Your task to perform on an android device: install app "Facebook" Image 0: 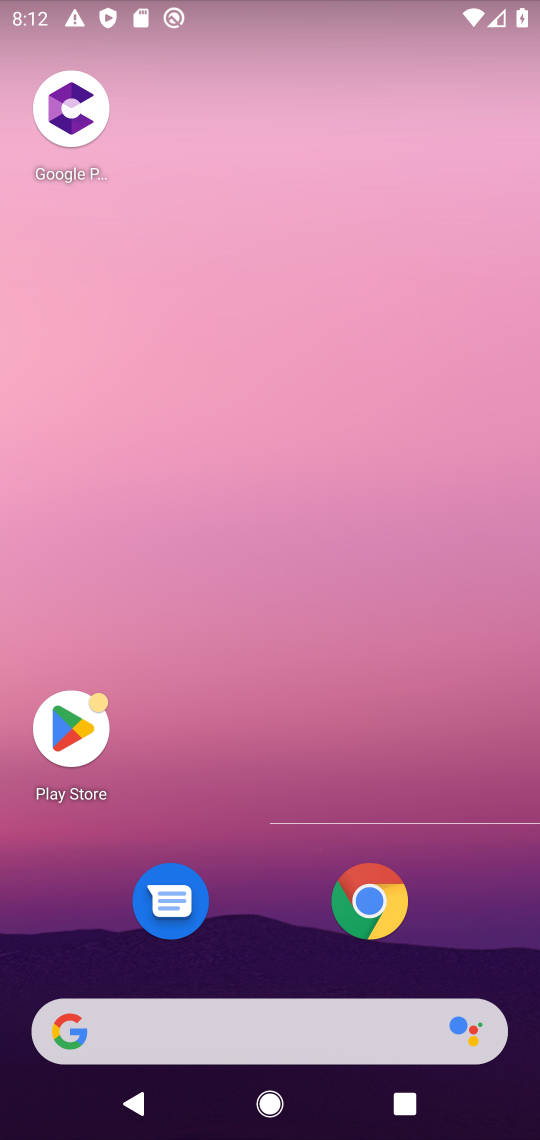
Step 0: click (72, 726)
Your task to perform on an android device: install app "Facebook" Image 1: 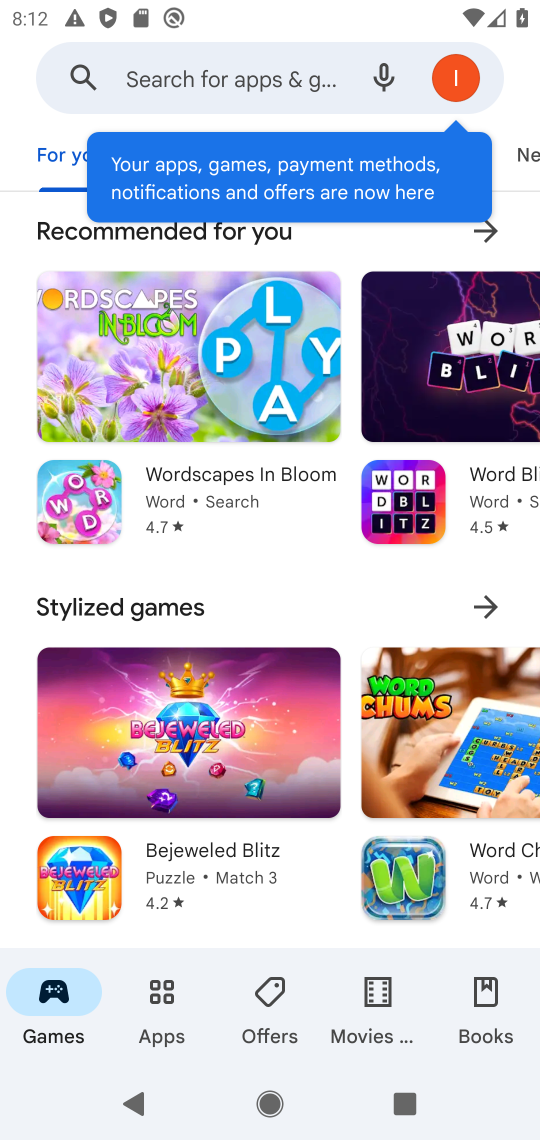
Step 1: click (308, 70)
Your task to perform on an android device: install app "Facebook" Image 2: 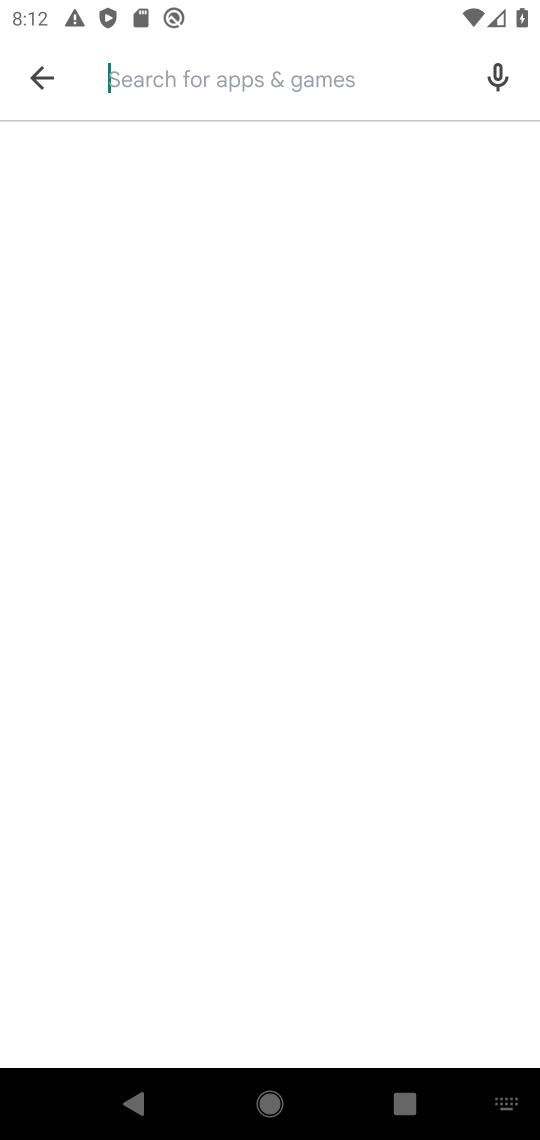
Step 2: type "Facebook"
Your task to perform on an android device: install app "Facebook" Image 3: 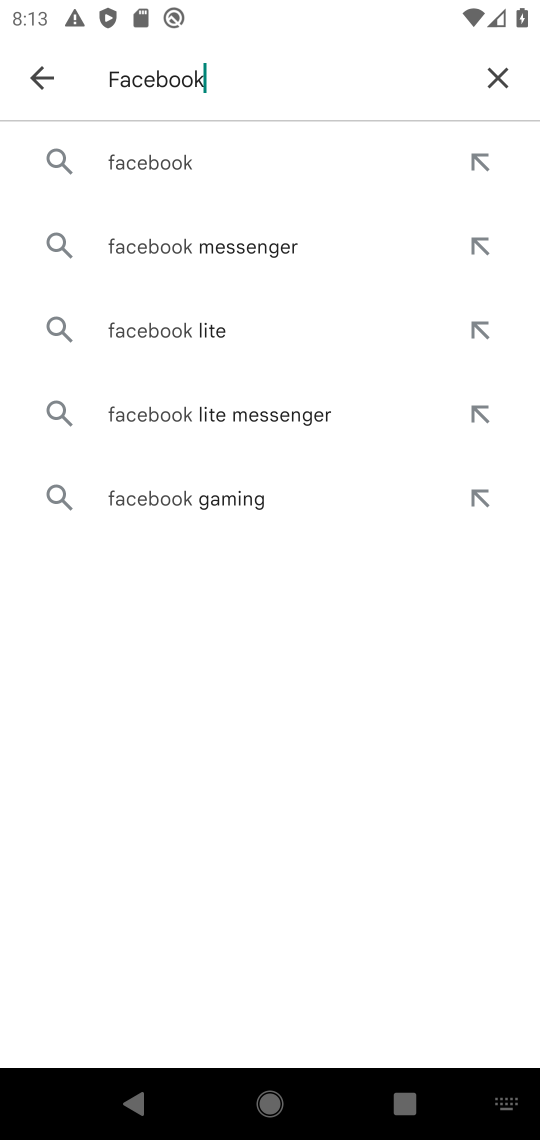
Step 3: click (170, 151)
Your task to perform on an android device: install app "Facebook" Image 4: 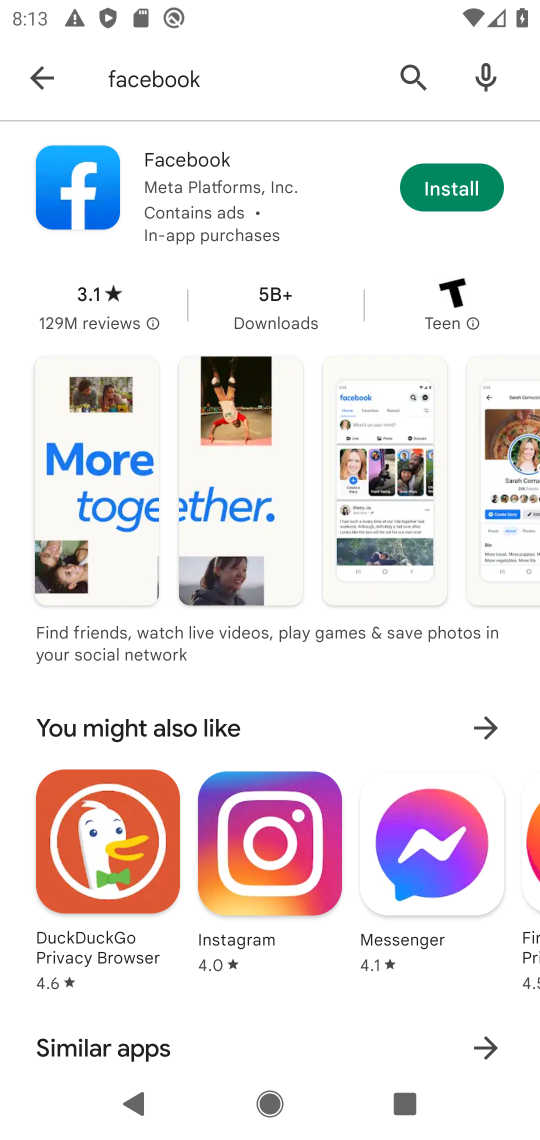
Step 4: click (445, 194)
Your task to perform on an android device: install app "Facebook" Image 5: 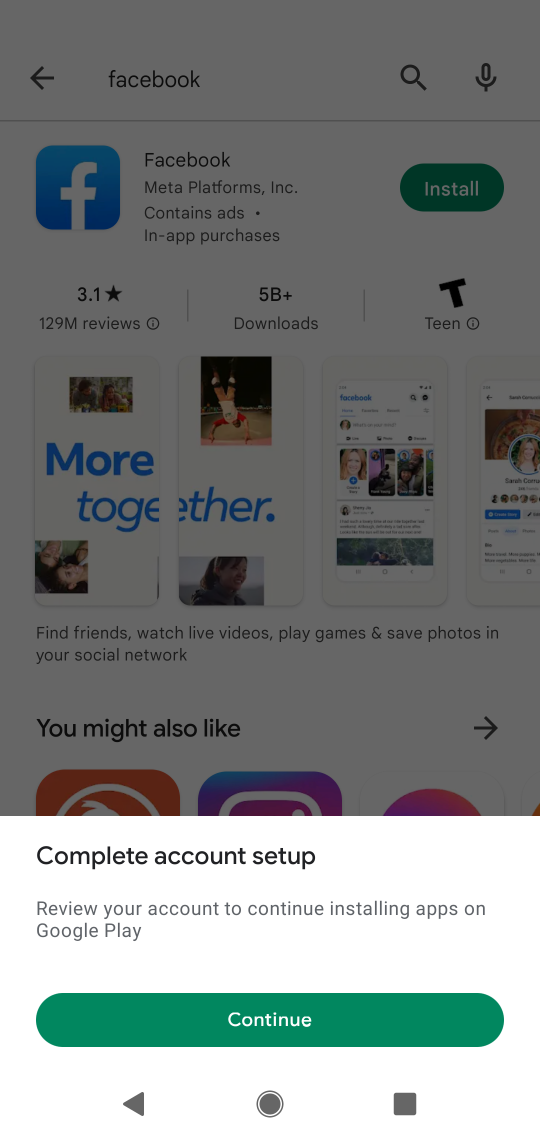
Step 5: click (309, 1016)
Your task to perform on an android device: install app "Facebook" Image 6: 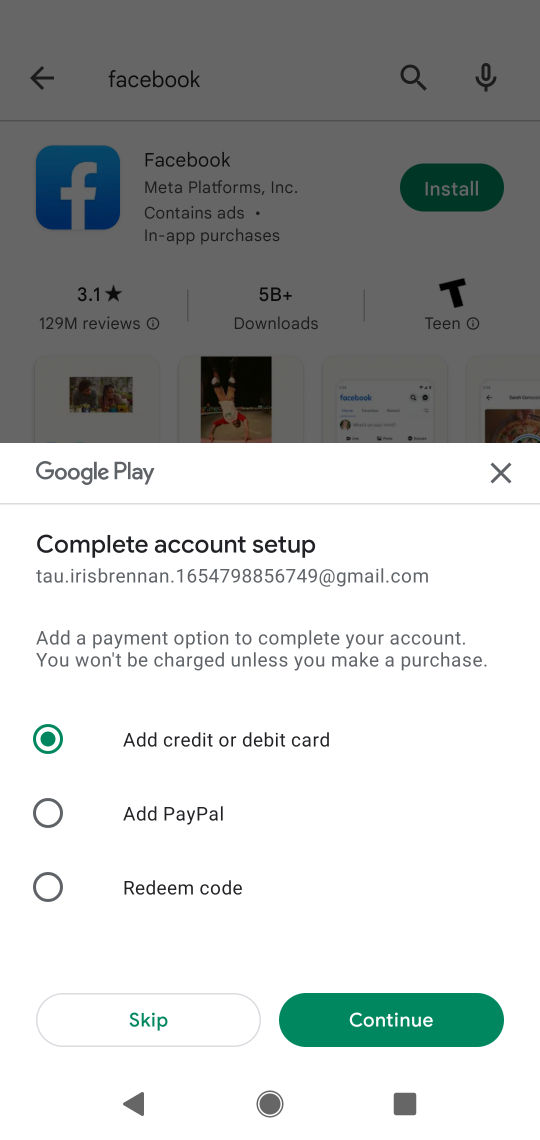
Step 6: click (468, 1032)
Your task to perform on an android device: install app "Facebook" Image 7: 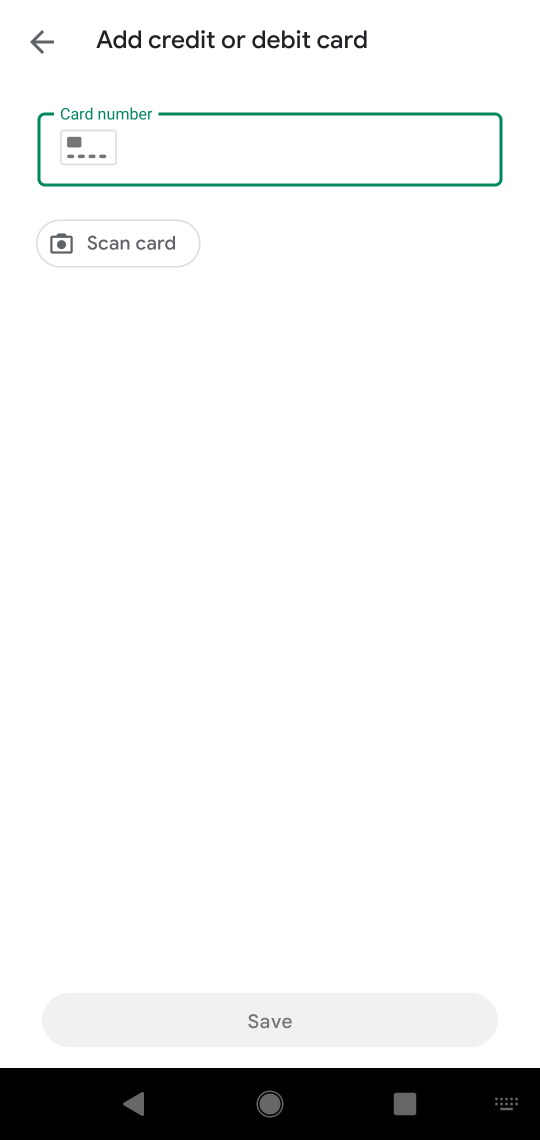
Step 7: click (52, 41)
Your task to perform on an android device: install app "Facebook" Image 8: 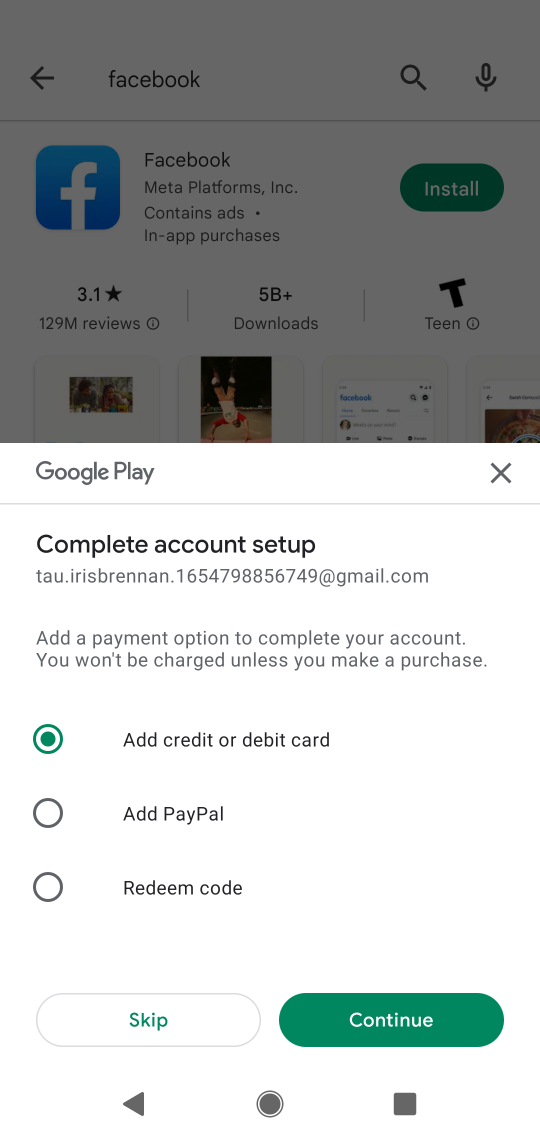
Step 8: click (127, 989)
Your task to perform on an android device: install app "Facebook" Image 9: 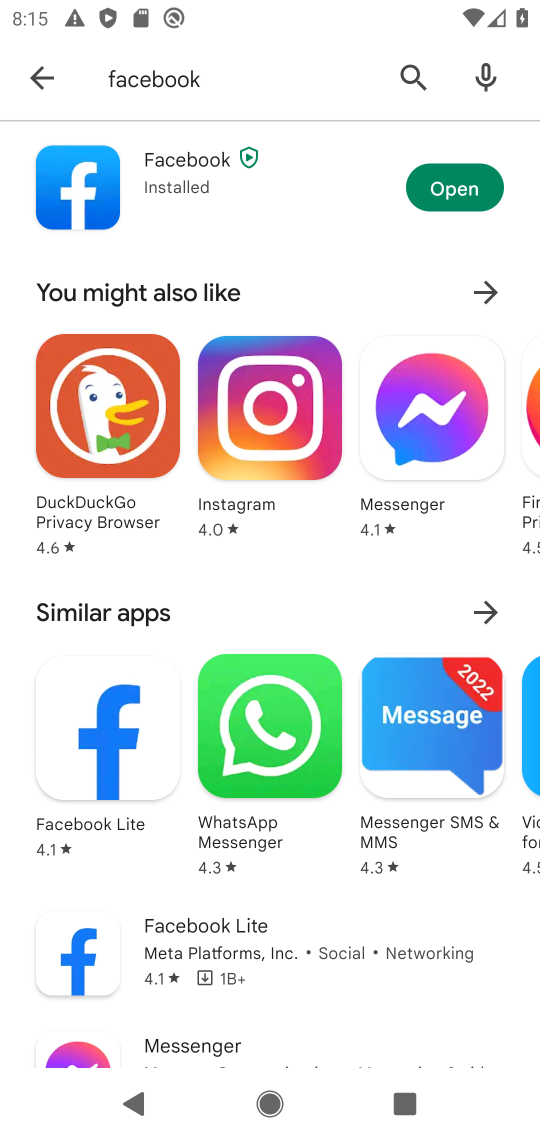
Step 9: task complete